Your task to perform on an android device: change text size in settings app Image 0: 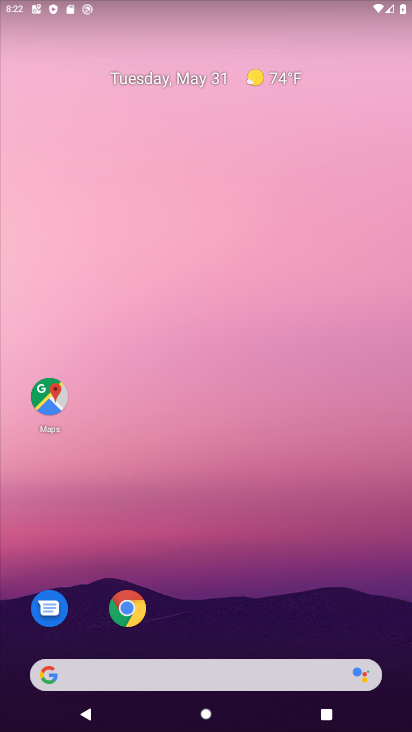
Step 0: drag from (214, 633) to (163, 281)
Your task to perform on an android device: change text size in settings app Image 1: 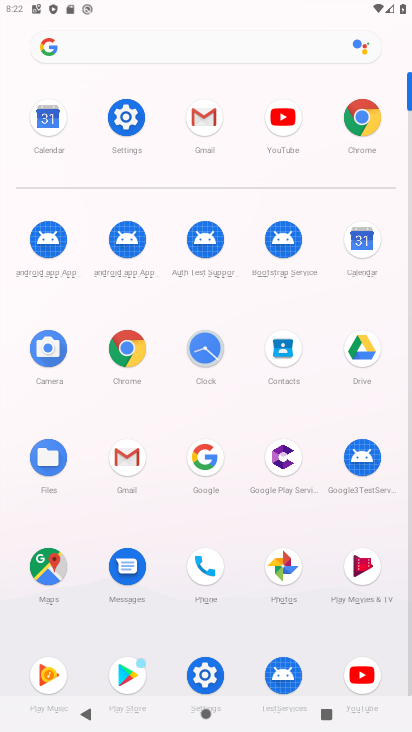
Step 1: click (125, 124)
Your task to perform on an android device: change text size in settings app Image 2: 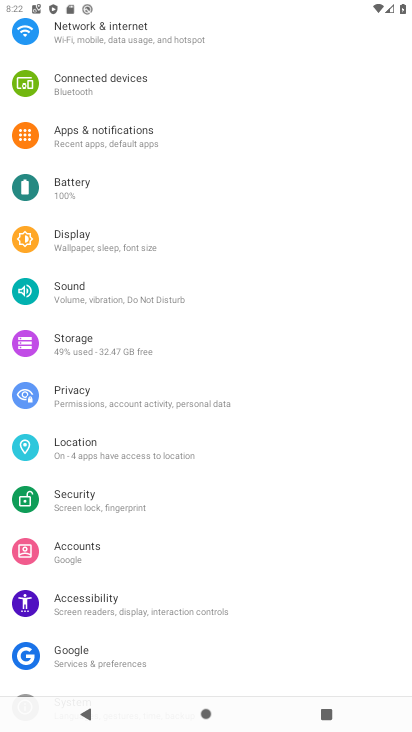
Step 2: click (67, 235)
Your task to perform on an android device: change text size in settings app Image 3: 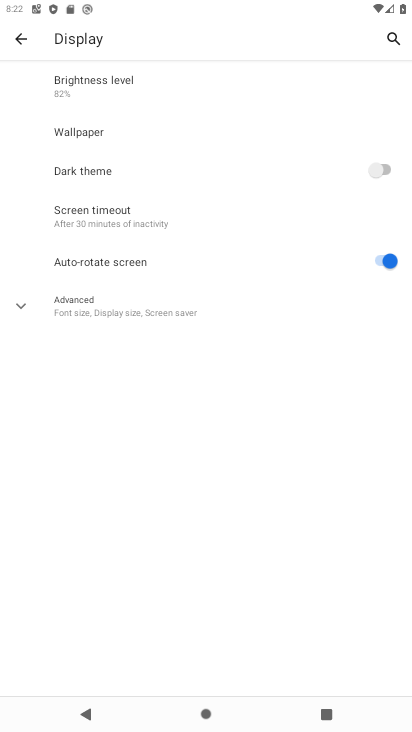
Step 3: click (59, 305)
Your task to perform on an android device: change text size in settings app Image 4: 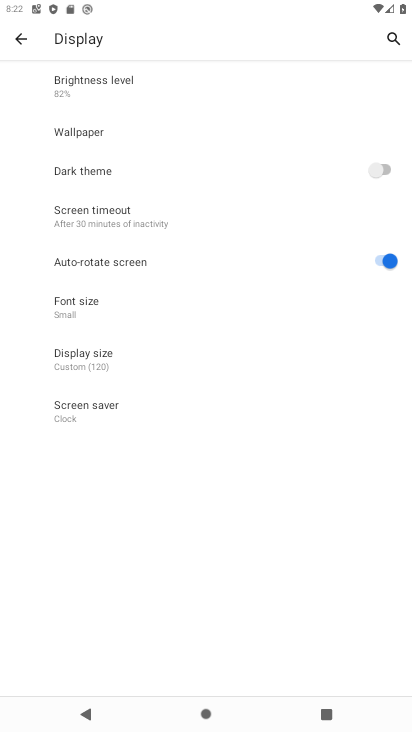
Step 4: click (59, 305)
Your task to perform on an android device: change text size in settings app Image 5: 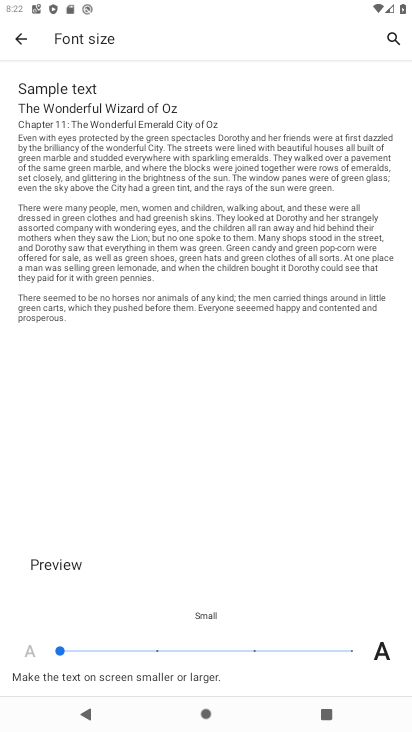
Step 5: click (153, 651)
Your task to perform on an android device: change text size in settings app Image 6: 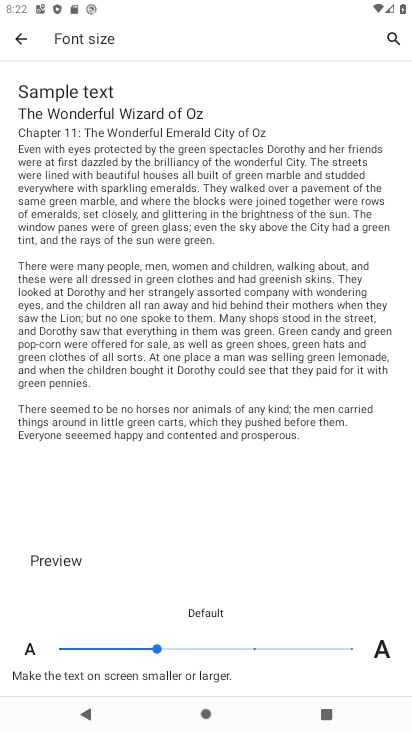
Step 6: task complete